Your task to perform on an android device: Open the calendar app, open the side menu, and click the "Day" option Image 0: 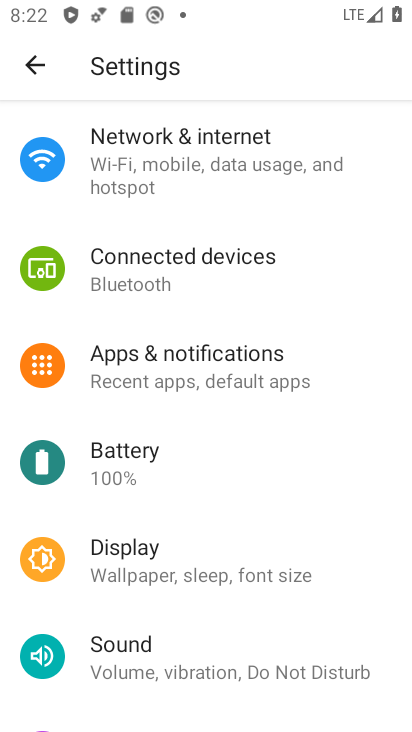
Step 0: press home button
Your task to perform on an android device: Open the calendar app, open the side menu, and click the "Day" option Image 1: 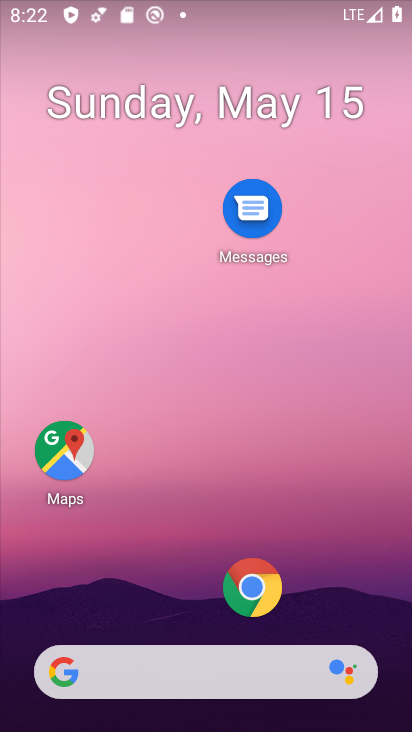
Step 1: drag from (129, 623) to (147, 235)
Your task to perform on an android device: Open the calendar app, open the side menu, and click the "Day" option Image 2: 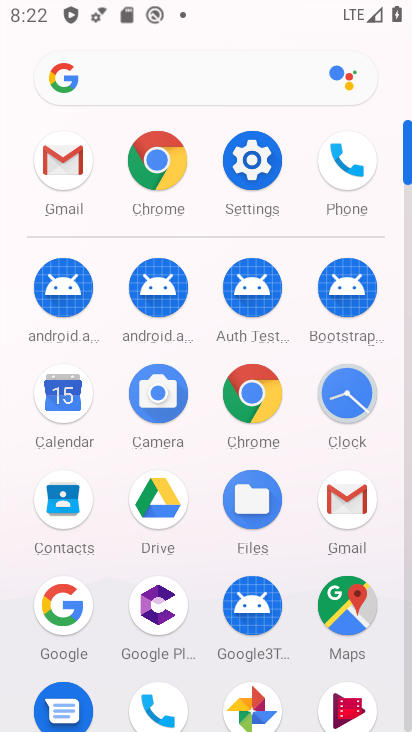
Step 2: click (74, 395)
Your task to perform on an android device: Open the calendar app, open the side menu, and click the "Day" option Image 3: 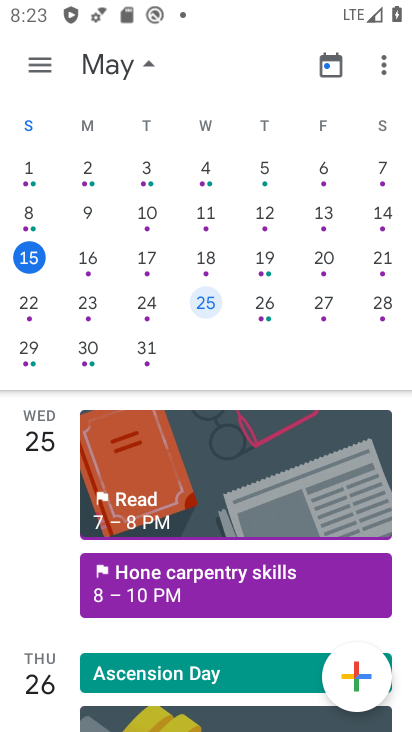
Step 3: click (42, 67)
Your task to perform on an android device: Open the calendar app, open the side menu, and click the "Day" option Image 4: 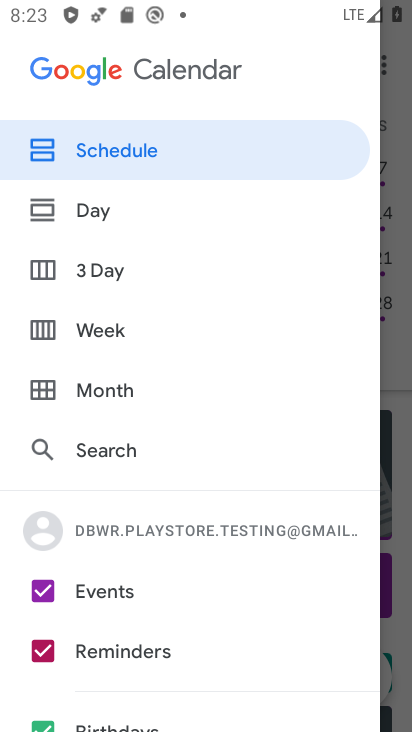
Step 4: click (96, 206)
Your task to perform on an android device: Open the calendar app, open the side menu, and click the "Day" option Image 5: 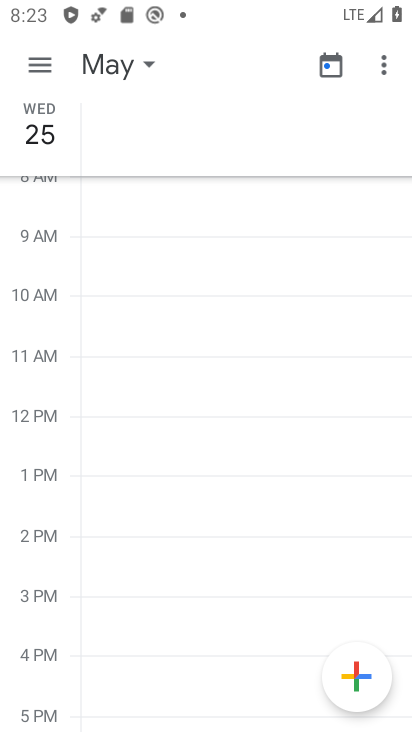
Step 5: task complete